Your task to perform on an android device: Is it going to rain this weekend? Image 0: 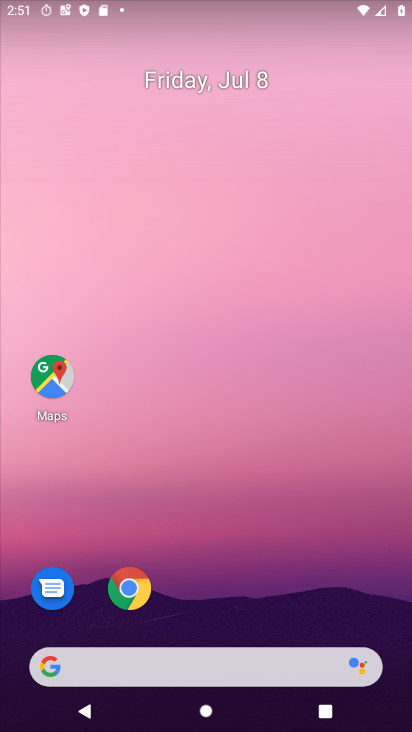
Step 0: press home button
Your task to perform on an android device: Is it going to rain this weekend? Image 1: 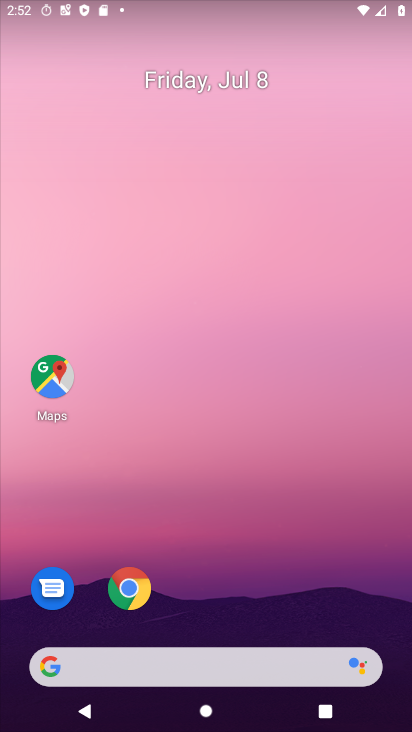
Step 1: click (55, 680)
Your task to perform on an android device: Is it going to rain this weekend? Image 2: 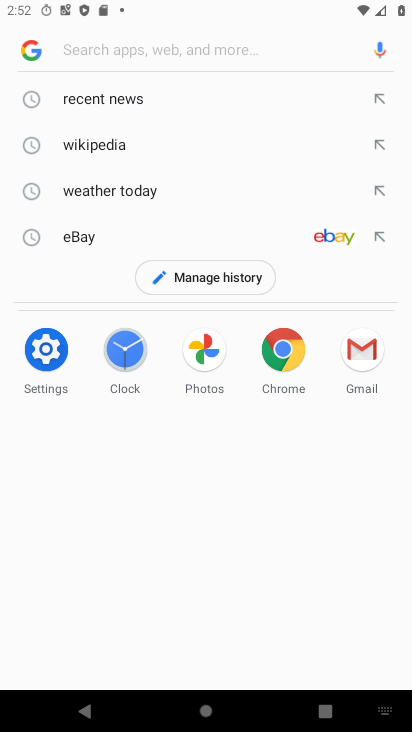
Step 2: type "rain this weekened"
Your task to perform on an android device: Is it going to rain this weekend? Image 3: 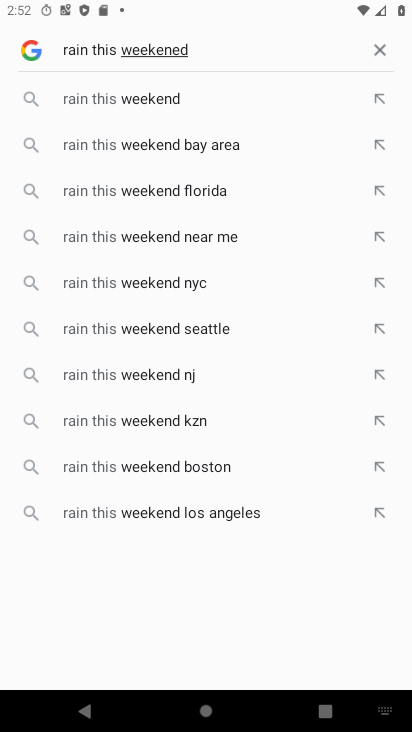
Step 3: click (162, 108)
Your task to perform on an android device: Is it going to rain this weekend? Image 4: 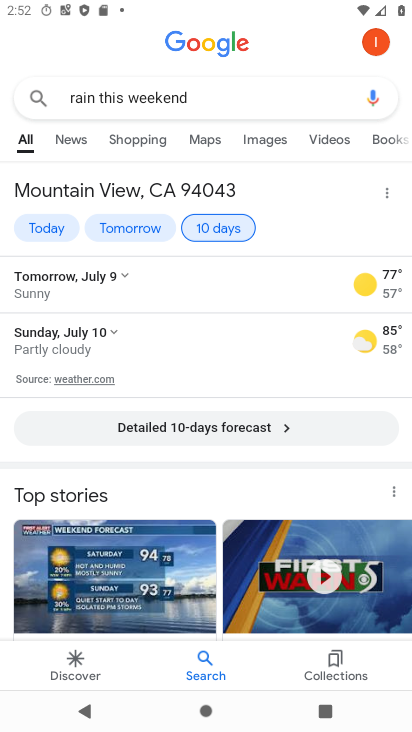
Step 4: task complete